Your task to perform on an android device: empty trash in google photos Image 0: 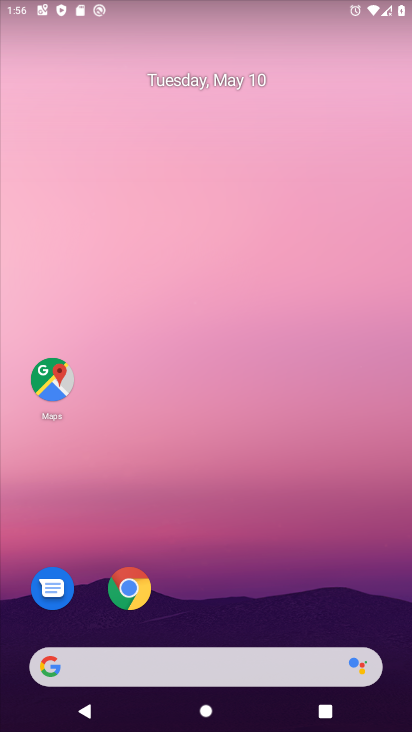
Step 0: click (256, 248)
Your task to perform on an android device: empty trash in google photos Image 1: 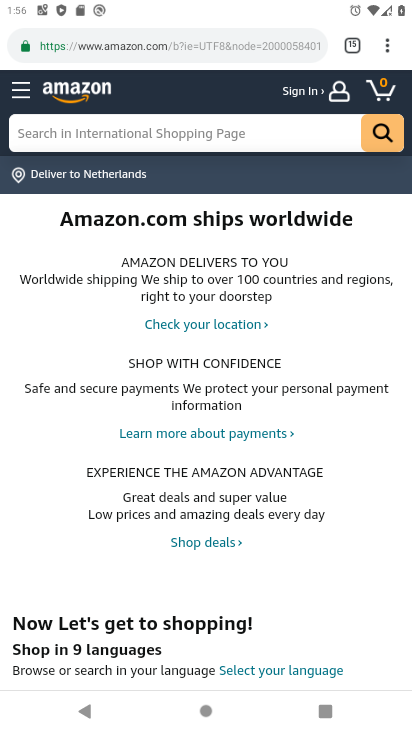
Step 1: press home button
Your task to perform on an android device: empty trash in google photos Image 2: 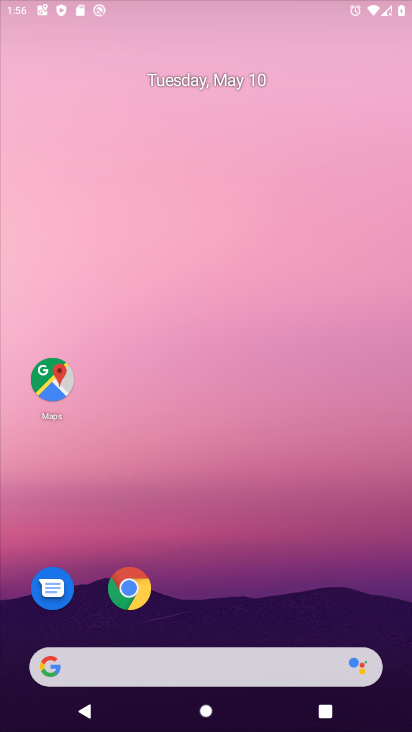
Step 2: click (283, 251)
Your task to perform on an android device: empty trash in google photos Image 3: 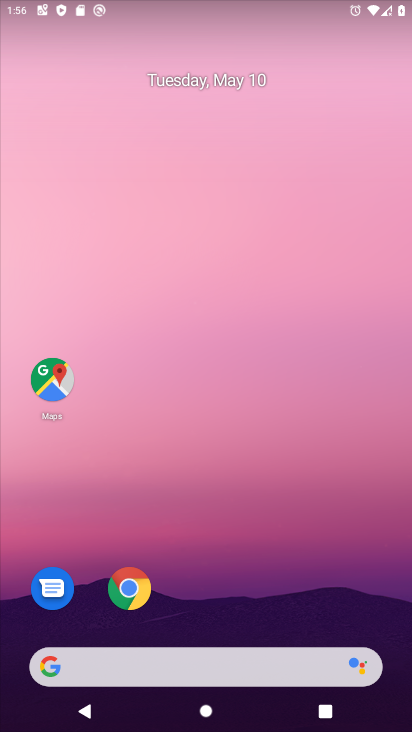
Step 3: drag from (206, 552) to (229, 189)
Your task to perform on an android device: empty trash in google photos Image 4: 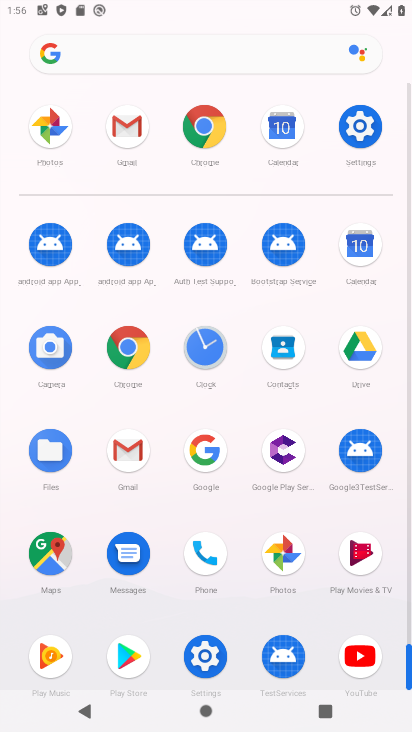
Step 4: click (276, 543)
Your task to perform on an android device: empty trash in google photos Image 5: 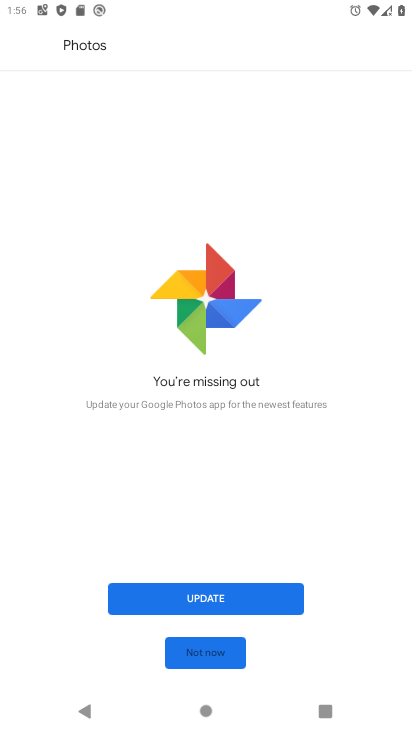
Step 5: click (206, 594)
Your task to perform on an android device: empty trash in google photos Image 6: 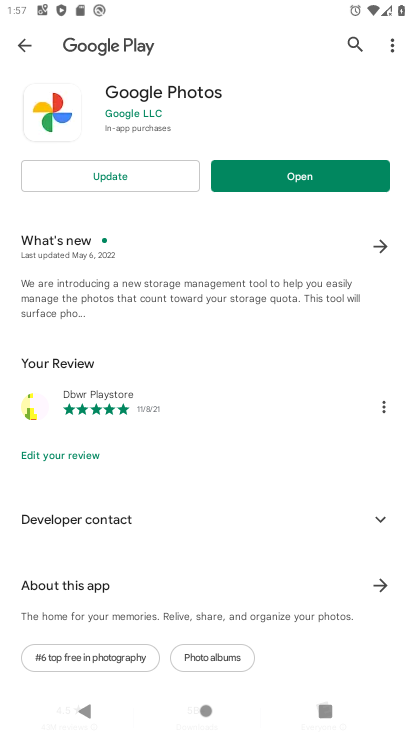
Step 6: press back button
Your task to perform on an android device: empty trash in google photos Image 7: 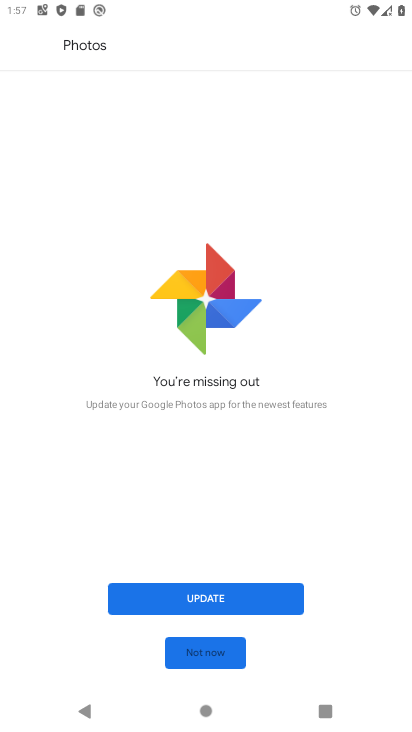
Step 7: click (211, 639)
Your task to perform on an android device: empty trash in google photos Image 8: 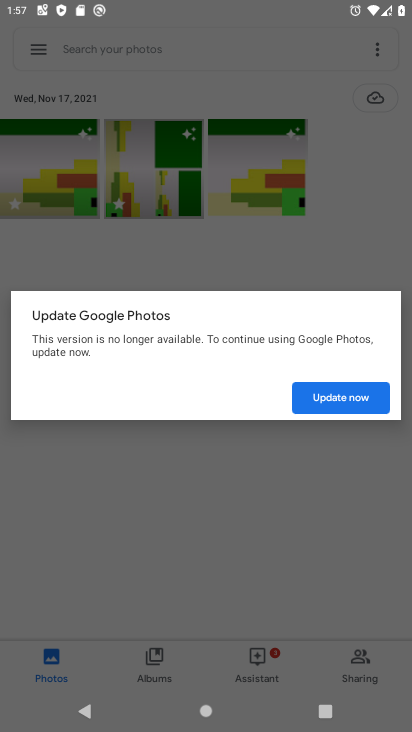
Step 8: click (343, 386)
Your task to perform on an android device: empty trash in google photos Image 9: 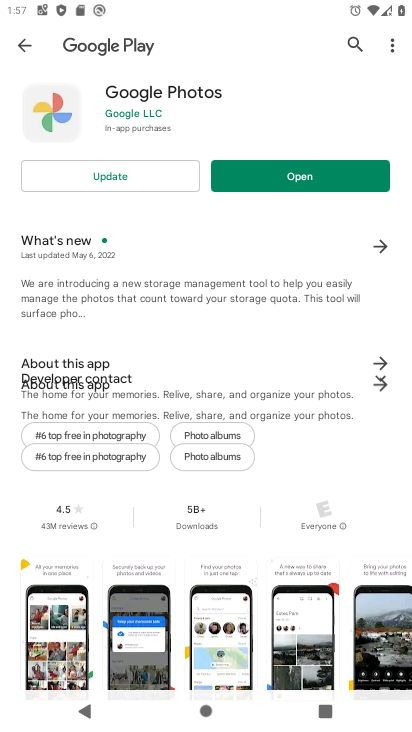
Step 9: press back button
Your task to perform on an android device: empty trash in google photos Image 10: 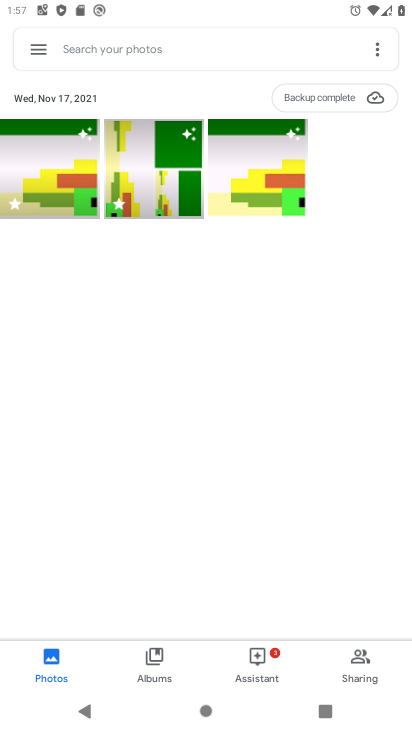
Step 10: click (45, 45)
Your task to perform on an android device: empty trash in google photos Image 11: 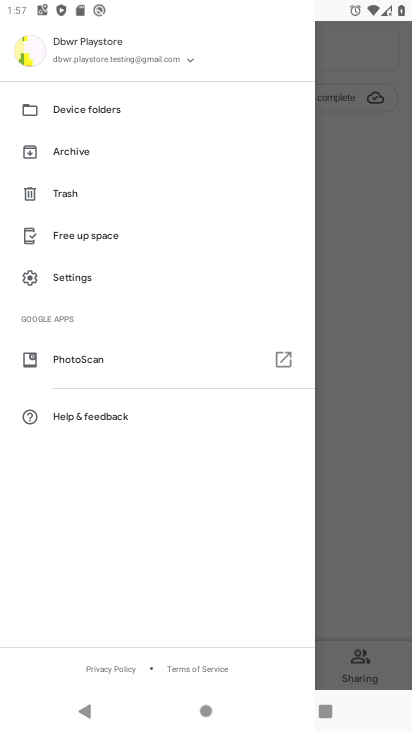
Step 11: click (84, 192)
Your task to perform on an android device: empty trash in google photos Image 12: 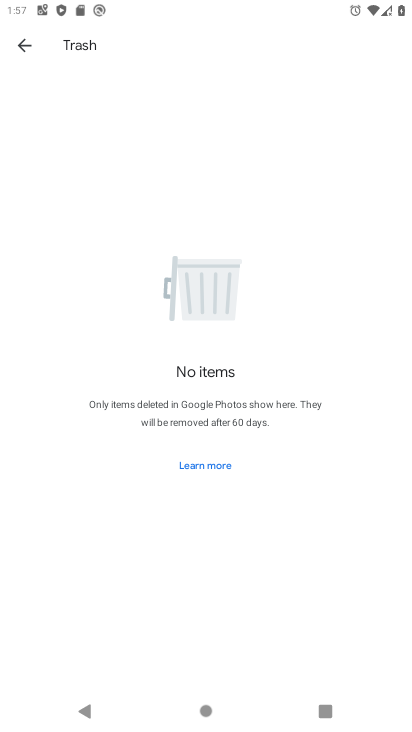
Step 12: task complete